Your task to perform on an android device: change text size in settings app Image 0: 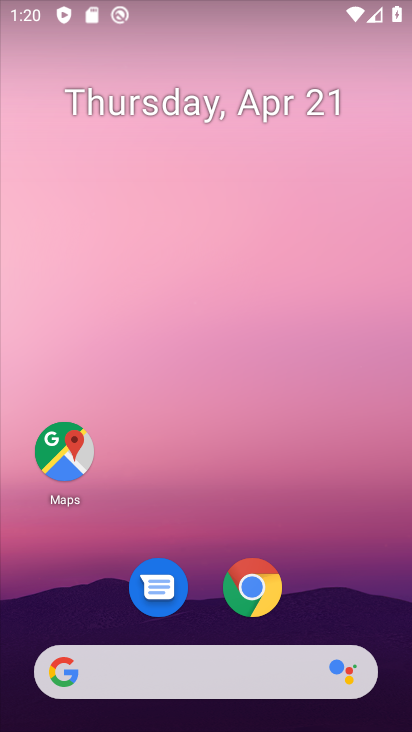
Step 0: drag from (335, 593) to (274, 195)
Your task to perform on an android device: change text size in settings app Image 1: 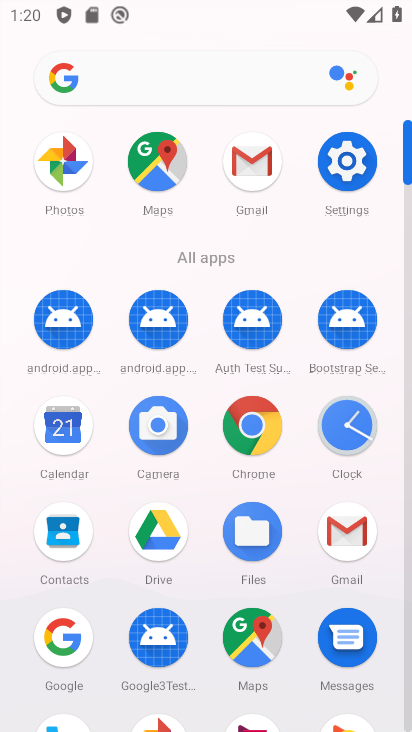
Step 1: click (408, 671)
Your task to perform on an android device: change text size in settings app Image 2: 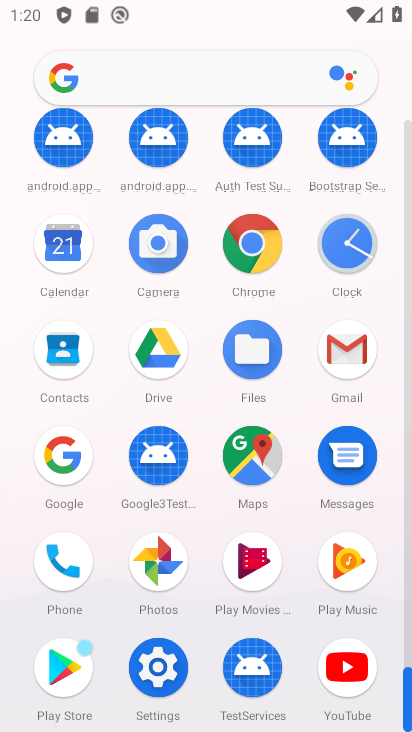
Step 2: click (157, 668)
Your task to perform on an android device: change text size in settings app Image 3: 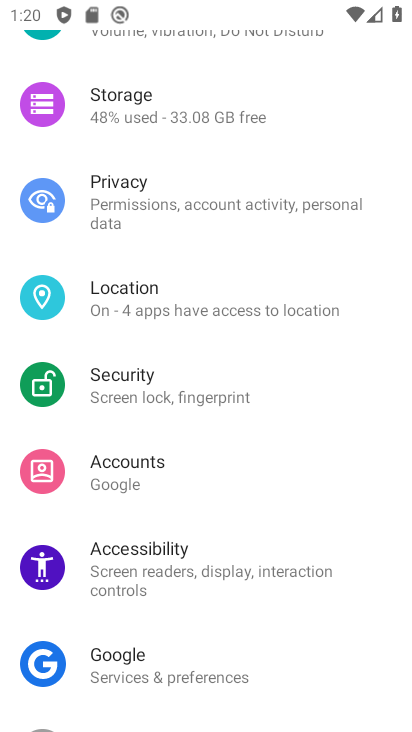
Step 3: drag from (240, 239) to (250, 438)
Your task to perform on an android device: change text size in settings app Image 4: 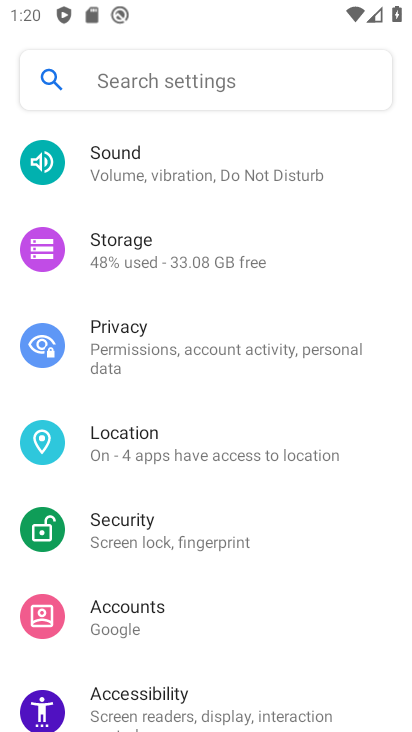
Step 4: drag from (247, 201) to (257, 425)
Your task to perform on an android device: change text size in settings app Image 5: 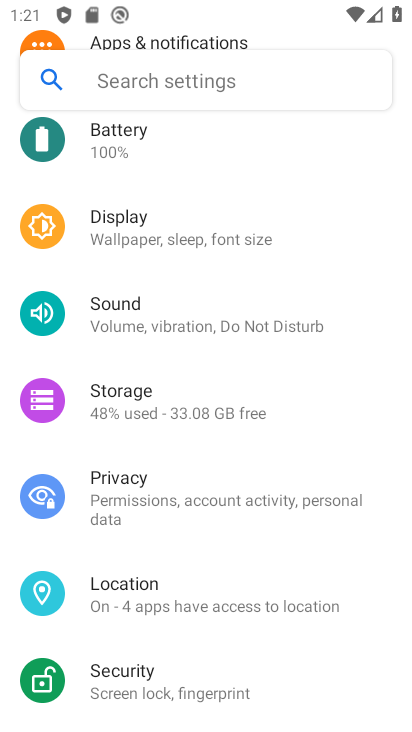
Step 5: click (139, 229)
Your task to perform on an android device: change text size in settings app Image 6: 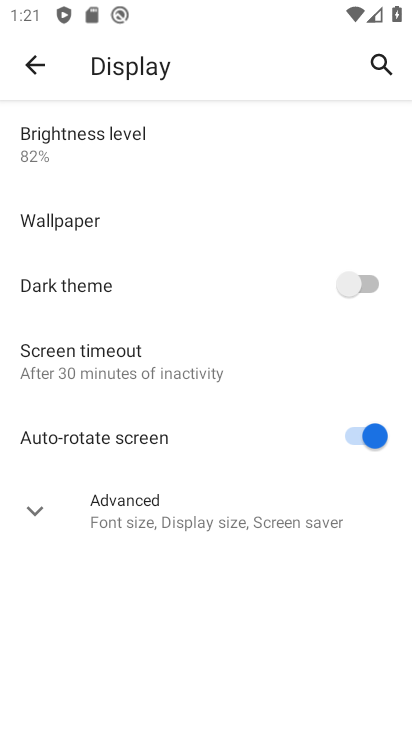
Step 6: click (35, 513)
Your task to perform on an android device: change text size in settings app Image 7: 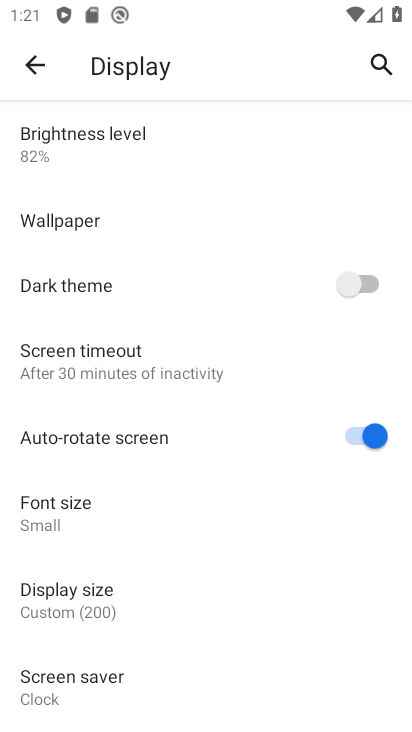
Step 7: click (42, 509)
Your task to perform on an android device: change text size in settings app Image 8: 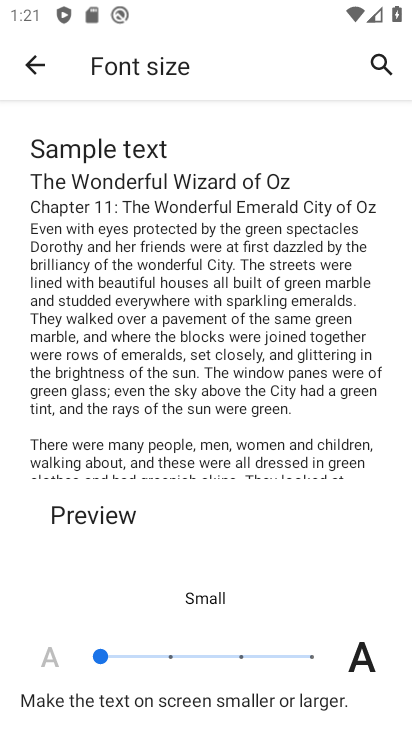
Step 8: click (171, 657)
Your task to perform on an android device: change text size in settings app Image 9: 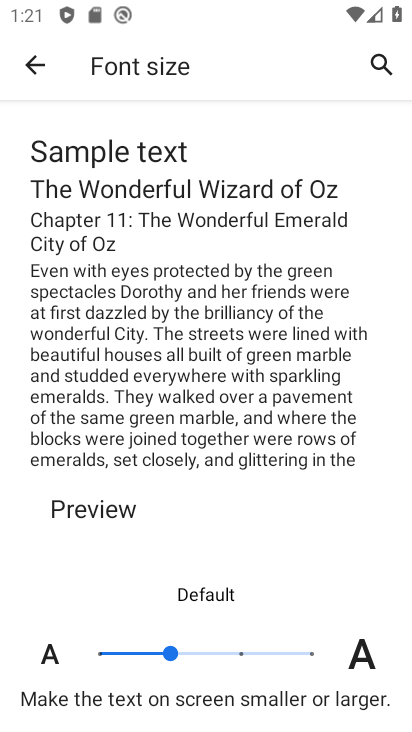
Step 9: task complete